Your task to perform on an android device: uninstall "ZOOM Cloud Meetings" Image 0: 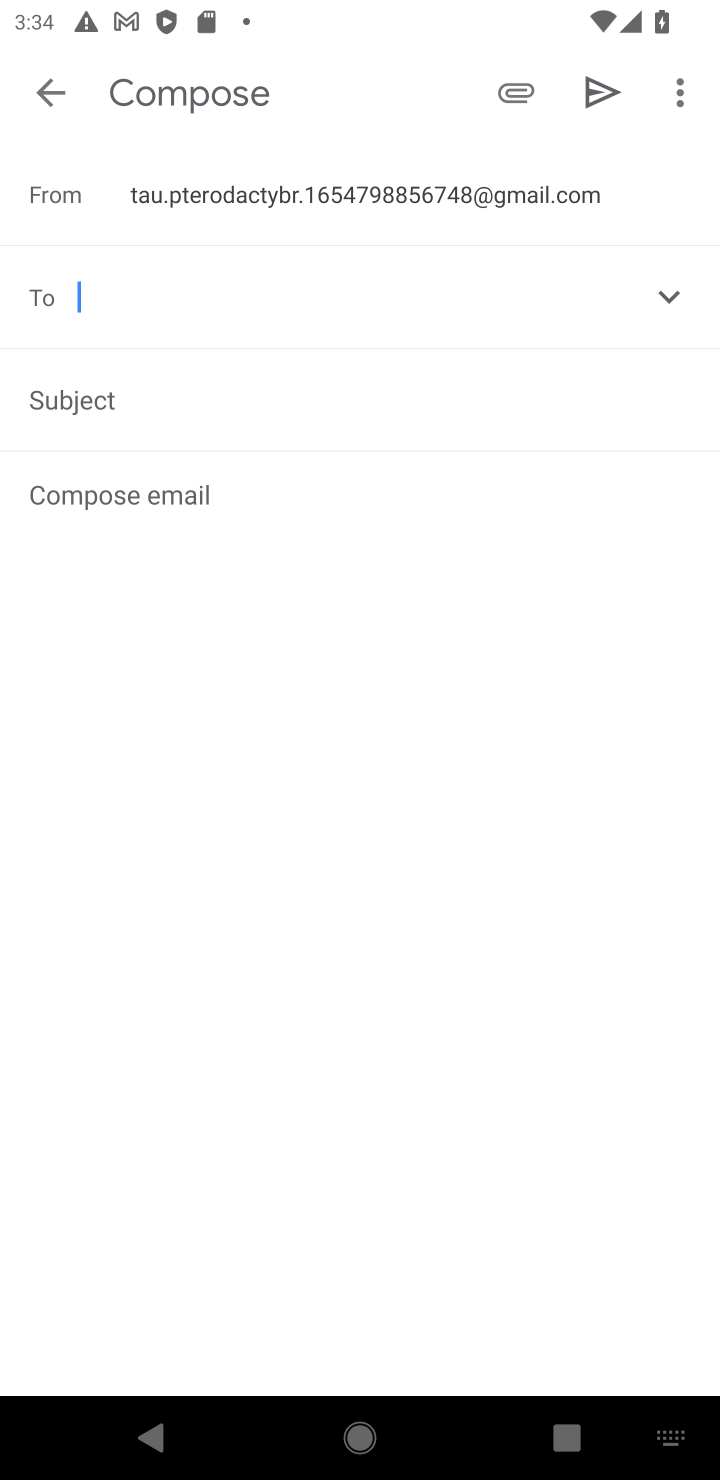
Step 0: press home button
Your task to perform on an android device: uninstall "ZOOM Cloud Meetings" Image 1: 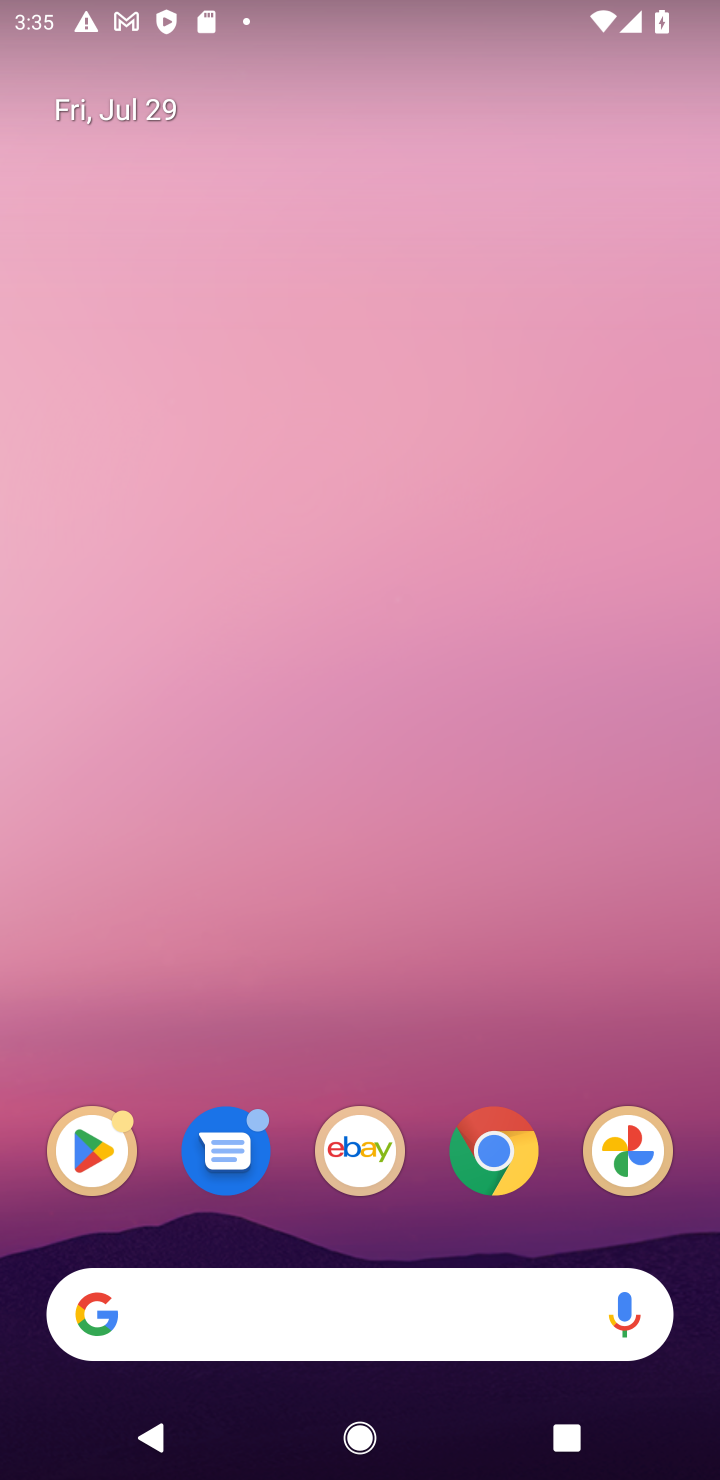
Step 1: click (81, 1169)
Your task to perform on an android device: uninstall "ZOOM Cloud Meetings" Image 2: 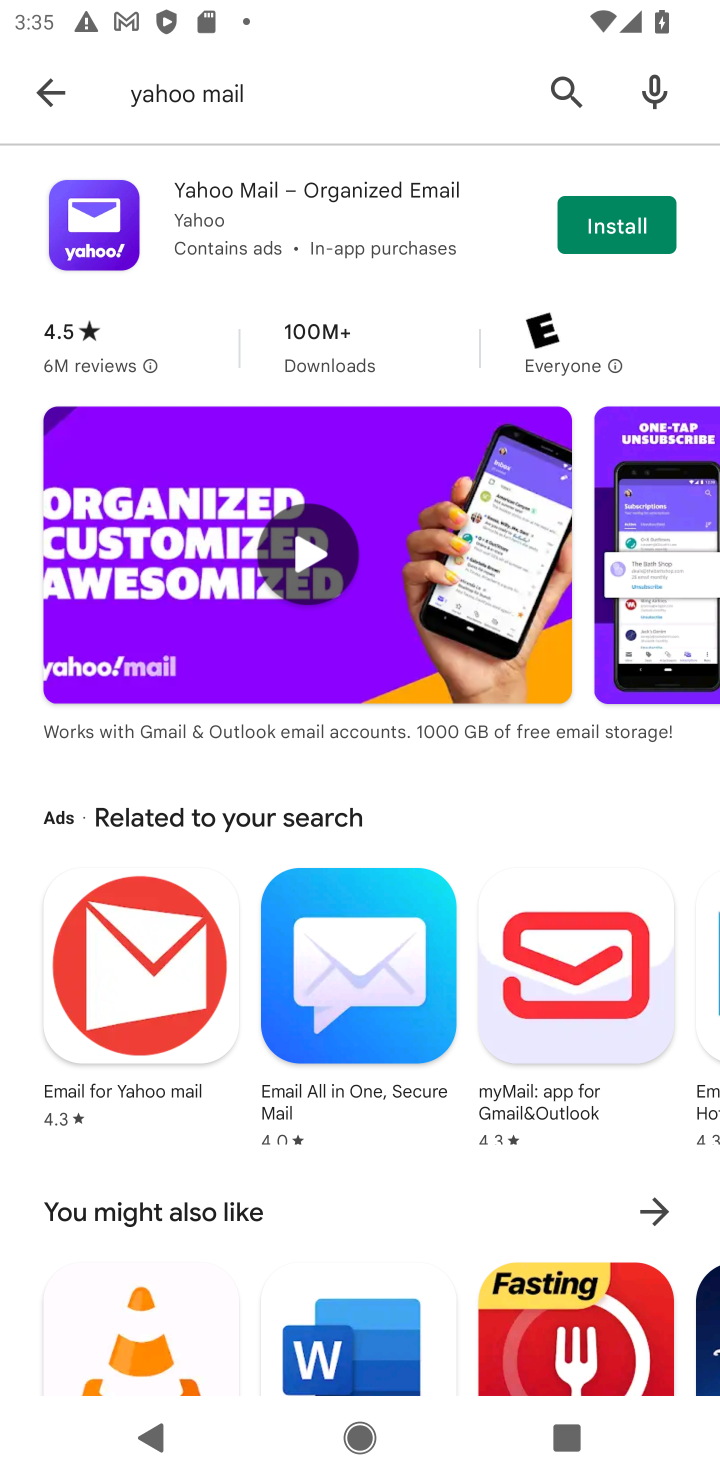
Step 2: click (551, 92)
Your task to perform on an android device: uninstall "ZOOM Cloud Meetings" Image 3: 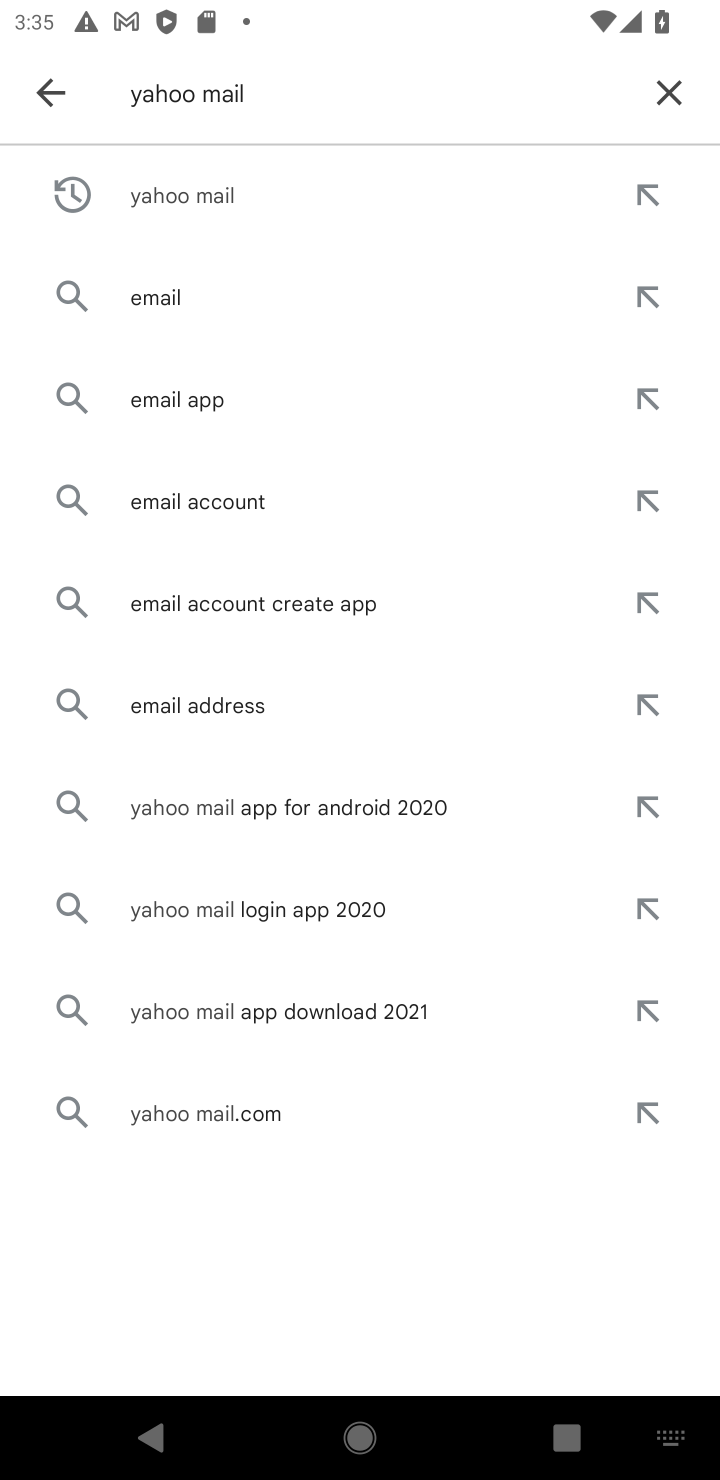
Step 3: click (686, 98)
Your task to perform on an android device: uninstall "ZOOM Cloud Meetings" Image 4: 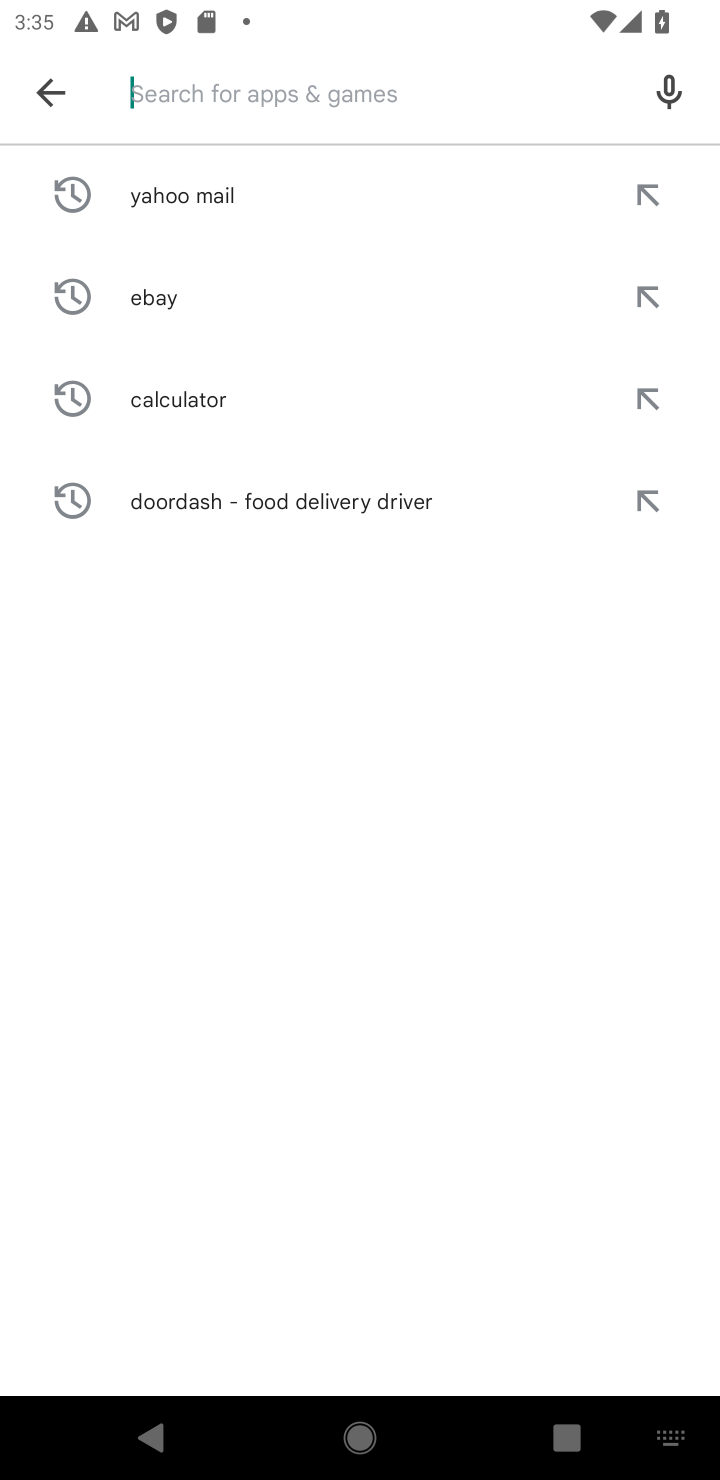
Step 4: type "ZOOM Cloud Meetings"
Your task to perform on an android device: uninstall "ZOOM Cloud Meetings" Image 5: 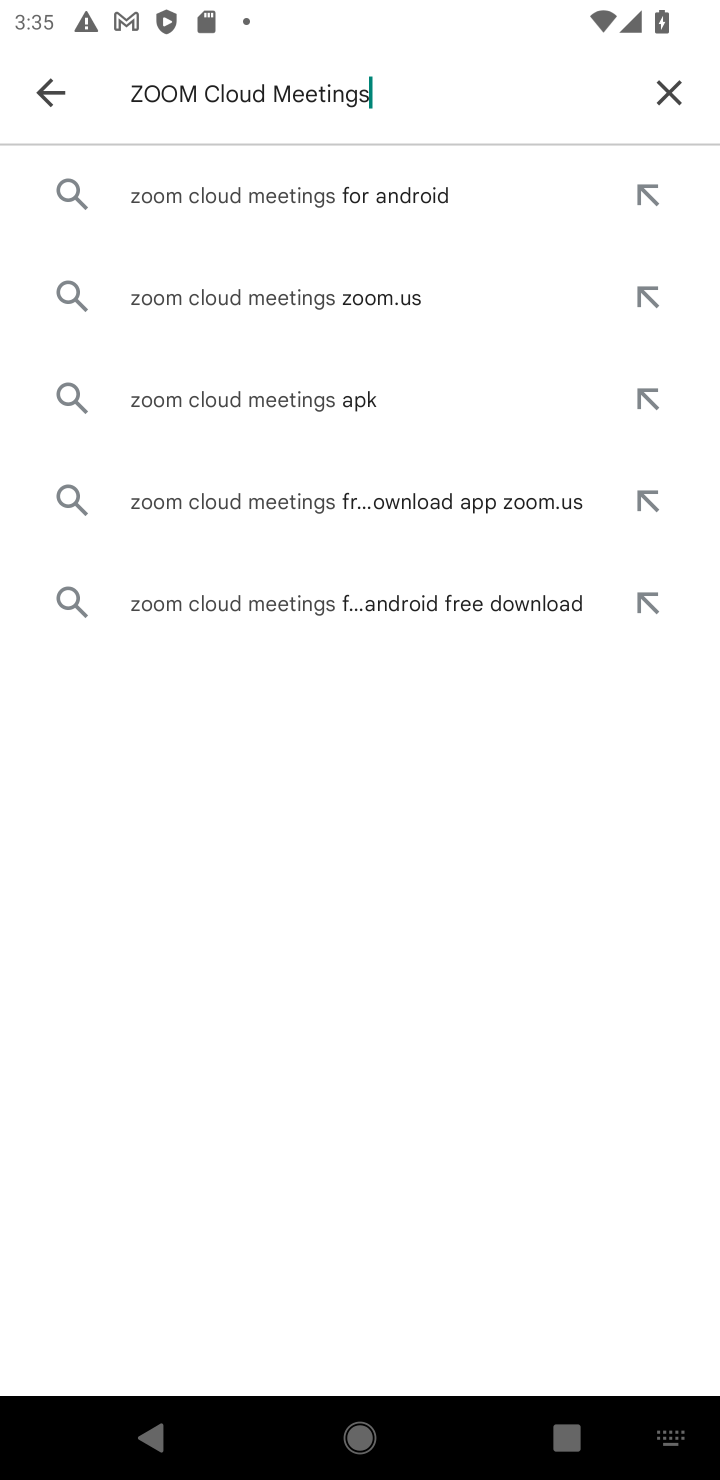
Step 5: press enter
Your task to perform on an android device: uninstall "ZOOM Cloud Meetings" Image 6: 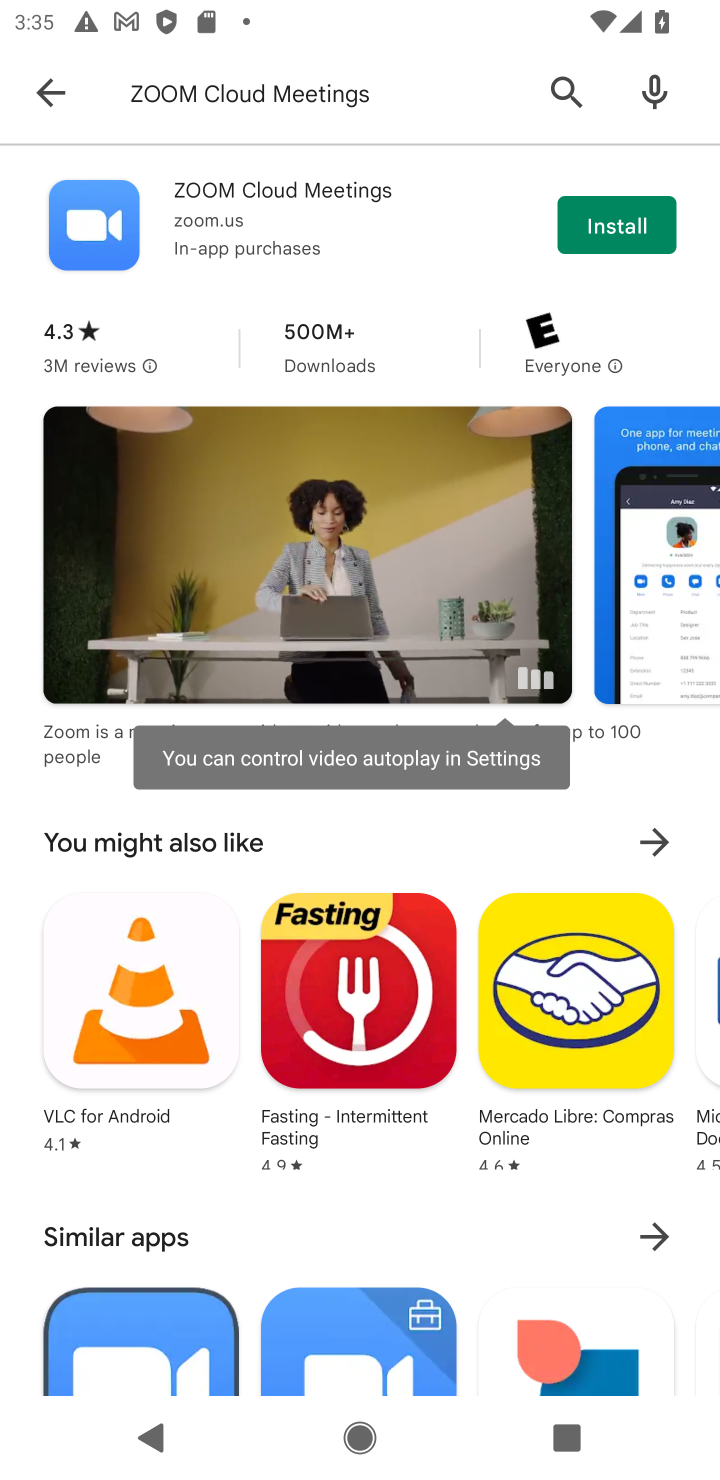
Step 6: task complete